Your task to perform on an android device: turn on translation in the chrome app Image 0: 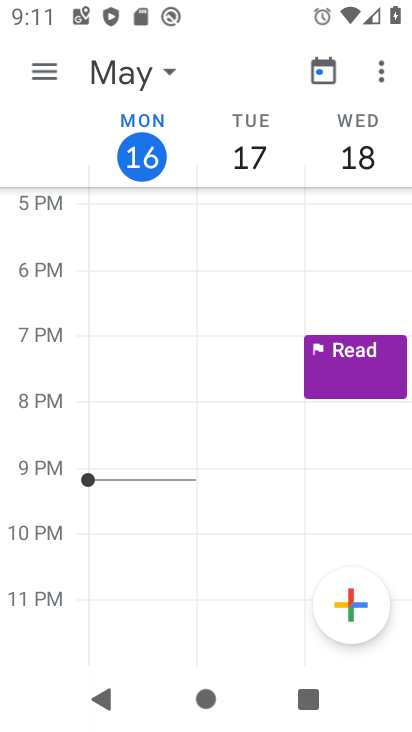
Step 0: press home button
Your task to perform on an android device: turn on translation in the chrome app Image 1: 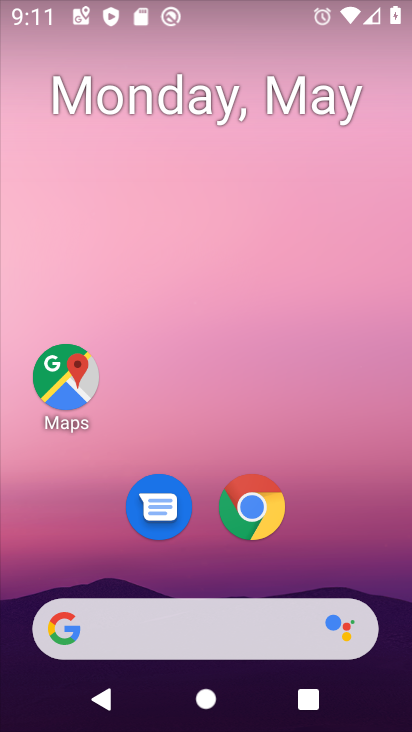
Step 1: click (260, 508)
Your task to perform on an android device: turn on translation in the chrome app Image 2: 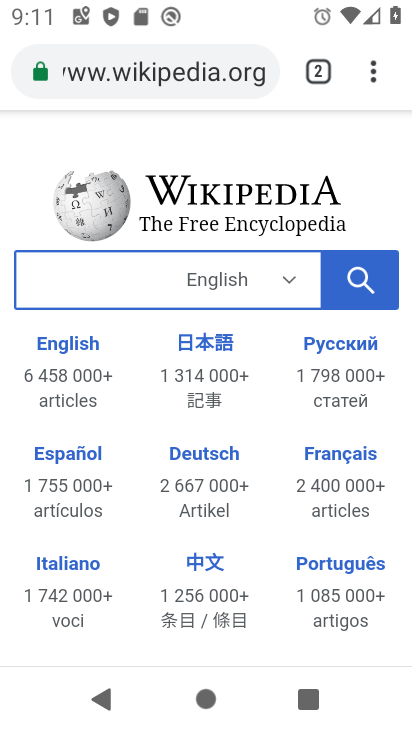
Step 2: click (373, 70)
Your task to perform on an android device: turn on translation in the chrome app Image 3: 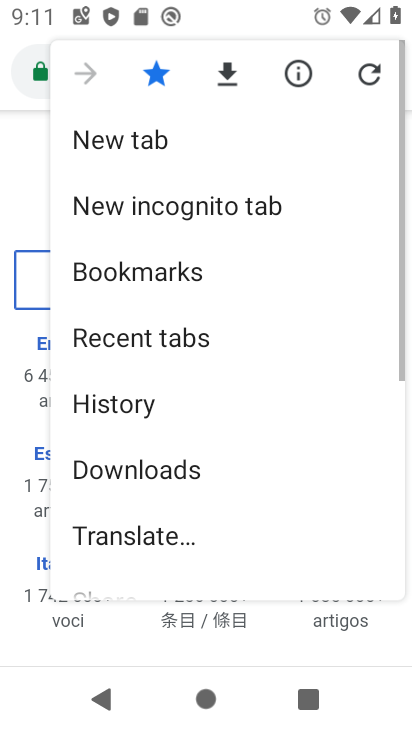
Step 3: drag from (133, 498) to (213, 126)
Your task to perform on an android device: turn on translation in the chrome app Image 4: 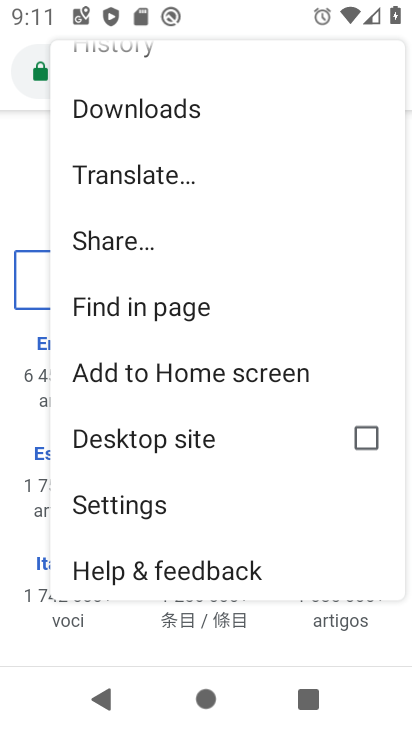
Step 4: click (149, 500)
Your task to perform on an android device: turn on translation in the chrome app Image 5: 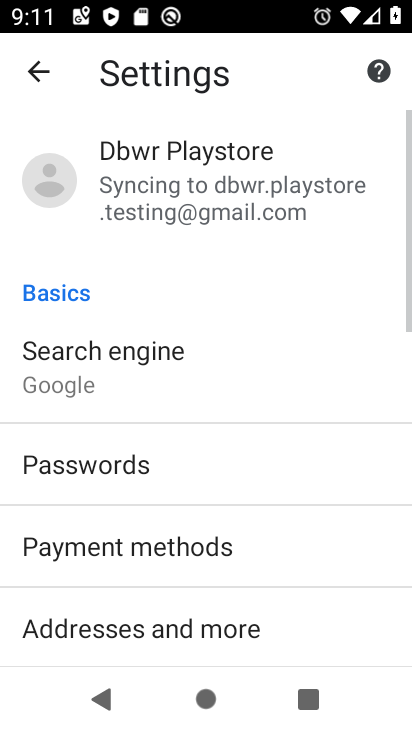
Step 5: drag from (137, 511) to (217, 161)
Your task to perform on an android device: turn on translation in the chrome app Image 6: 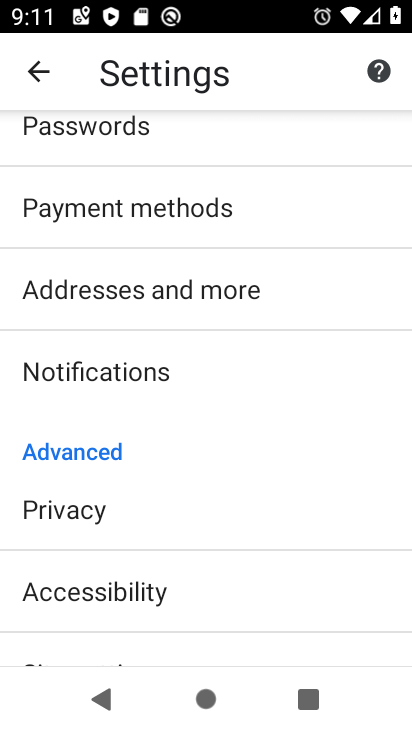
Step 6: drag from (169, 467) to (225, 175)
Your task to perform on an android device: turn on translation in the chrome app Image 7: 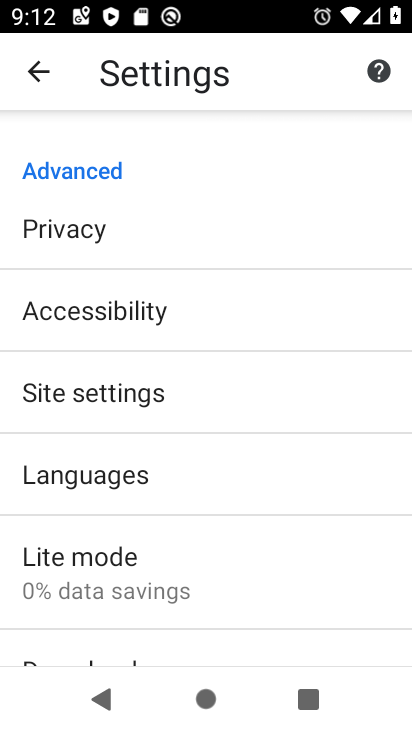
Step 7: click (139, 482)
Your task to perform on an android device: turn on translation in the chrome app Image 8: 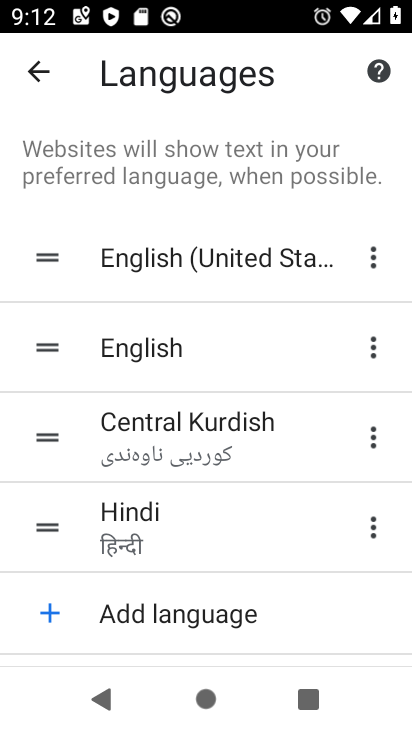
Step 8: task complete